Your task to perform on an android device: turn on translation in the chrome app Image 0: 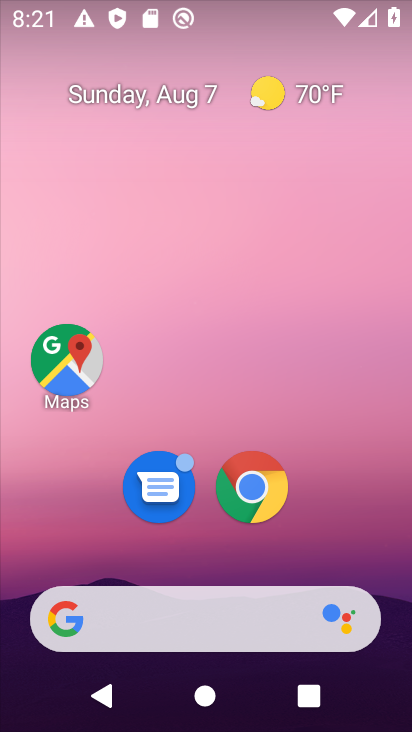
Step 0: click (253, 489)
Your task to perform on an android device: turn on translation in the chrome app Image 1: 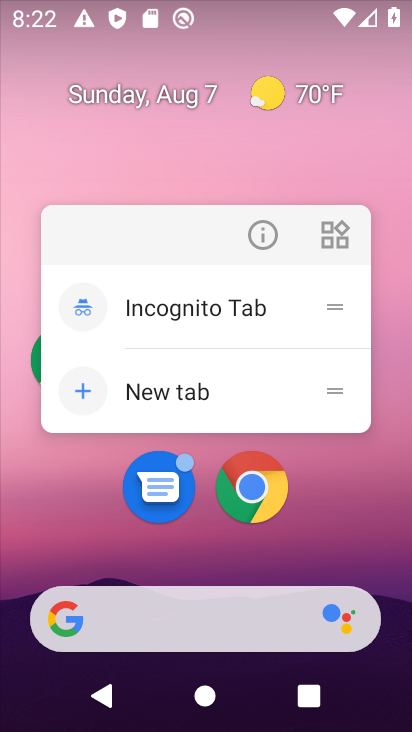
Step 1: press back button
Your task to perform on an android device: turn on translation in the chrome app Image 2: 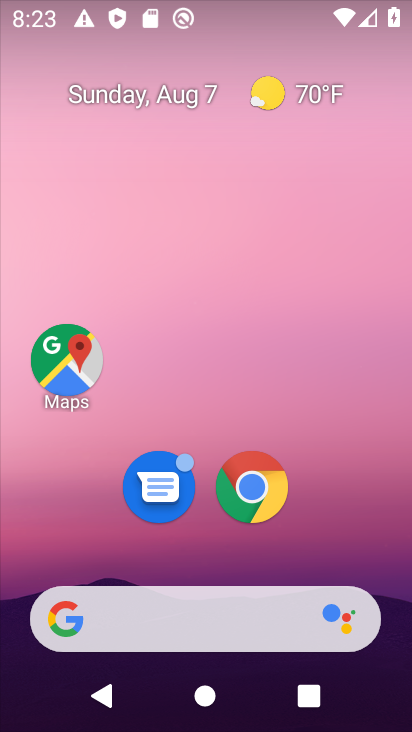
Step 2: click (247, 488)
Your task to perform on an android device: turn on translation in the chrome app Image 3: 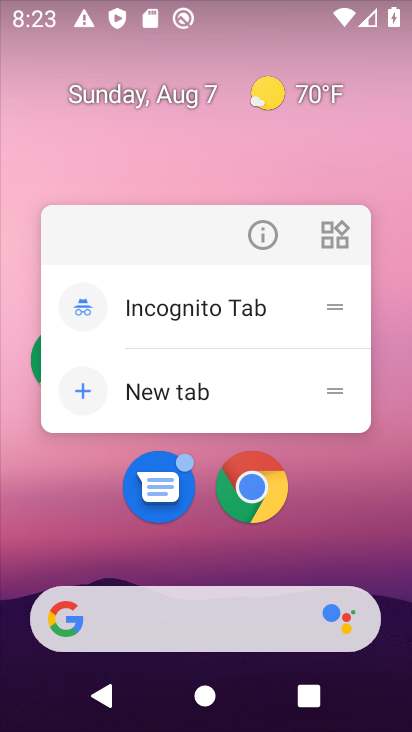
Step 3: click (236, 481)
Your task to perform on an android device: turn on translation in the chrome app Image 4: 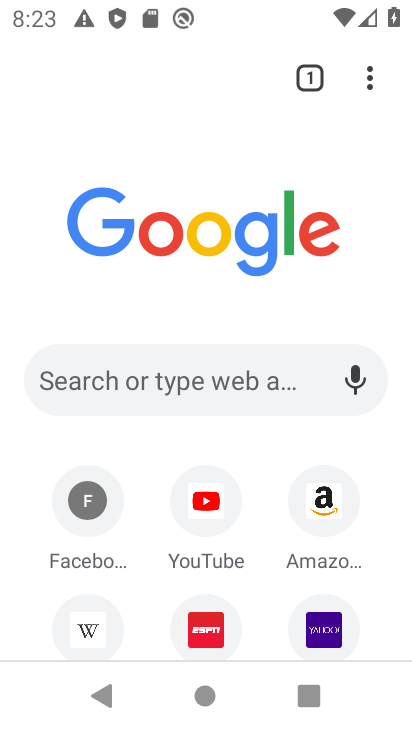
Step 4: click (372, 76)
Your task to perform on an android device: turn on translation in the chrome app Image 5: 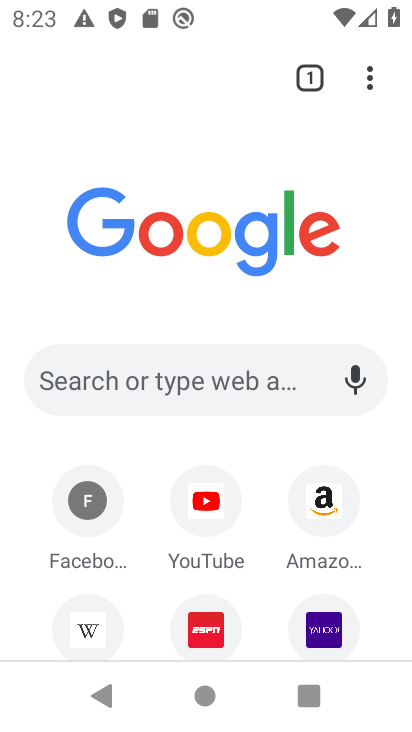
Step 5: click (371, 79)
Your task to perform on an android device: turn on translation in the chrome app Image 6: 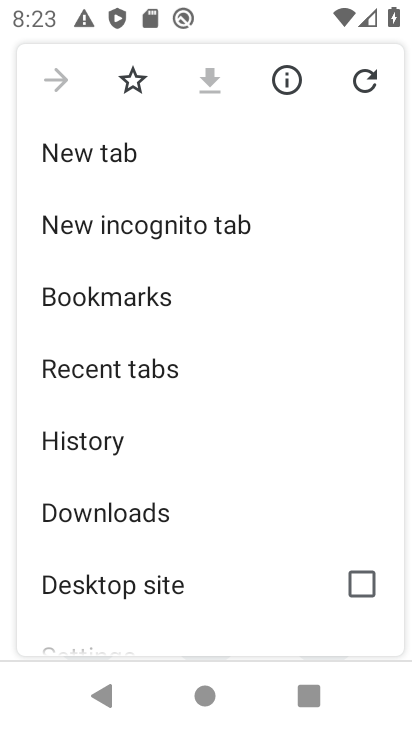
Step 6: drag from (237, 599) to (235, 300)
Your task to perform on an android device: turn on translation in the chrome app Image 7: 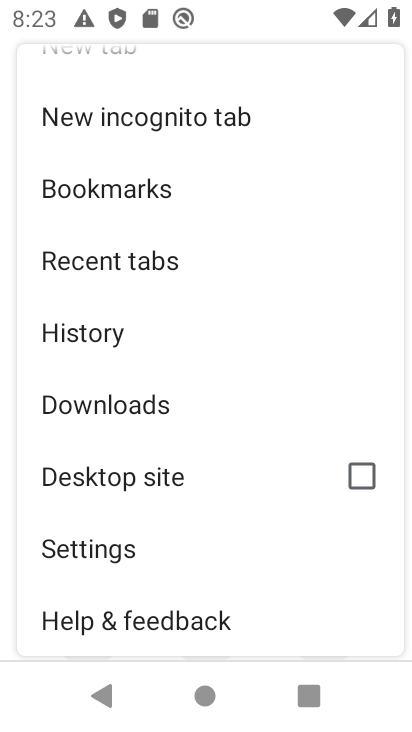
Step 7: click (88, 551)
Your task to perform on an android device: turn on translation in the chrome app Image 8: 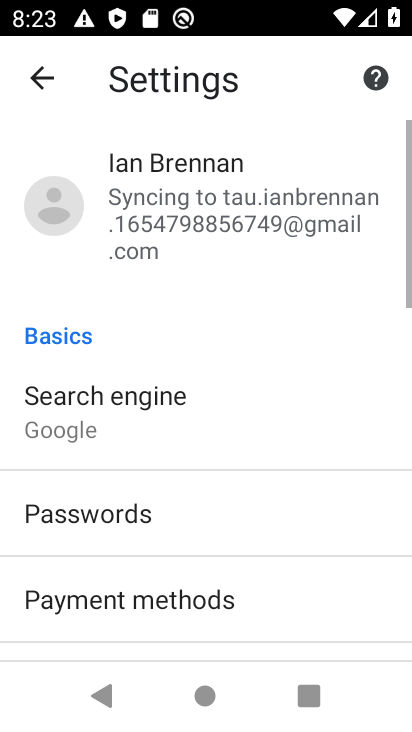
Step 8: drag from (303, 460) to (299, 135)
Your task to perform on an android device: turn on translation in the chrome app Image 9: 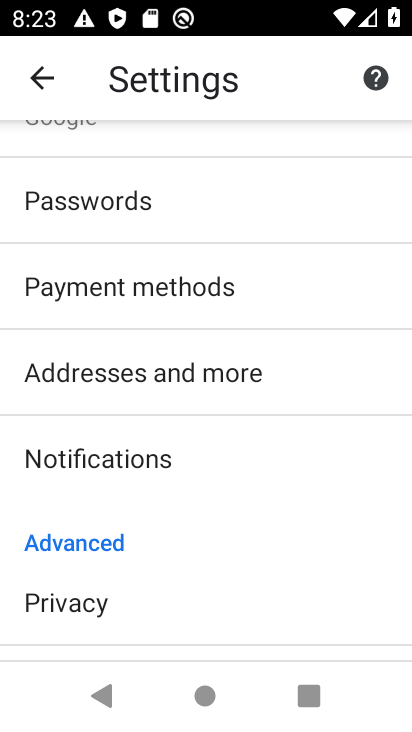
Step 9: drag from (279, 416) to (283, 129)
Your task to perform on an android device: turn on translation in the chrome app Image 10: 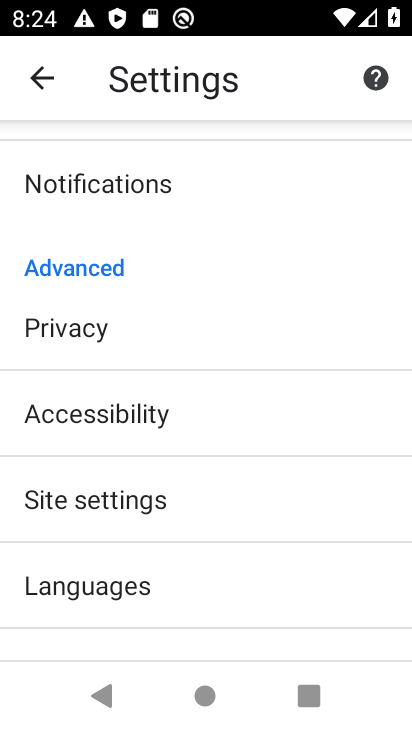
Step 10: click (167, 598)
Your task to perform on an android device: turn on translation in the chrome app Image 11: 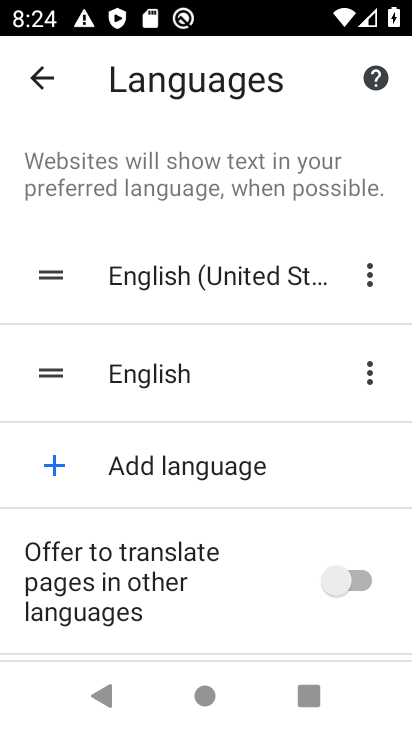
Step 11: click (347, 574)
Your task to perform on an android device: turn on translation in the chrome app Image 12: 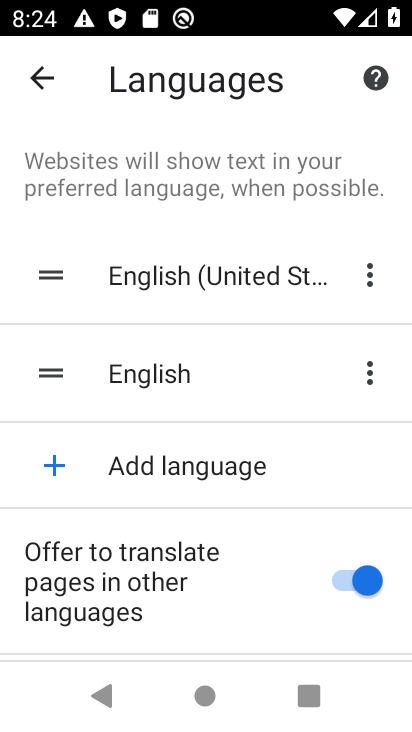
Step 12: task complete